Your task to perform on an android device: empty trash in google photos Image 0: 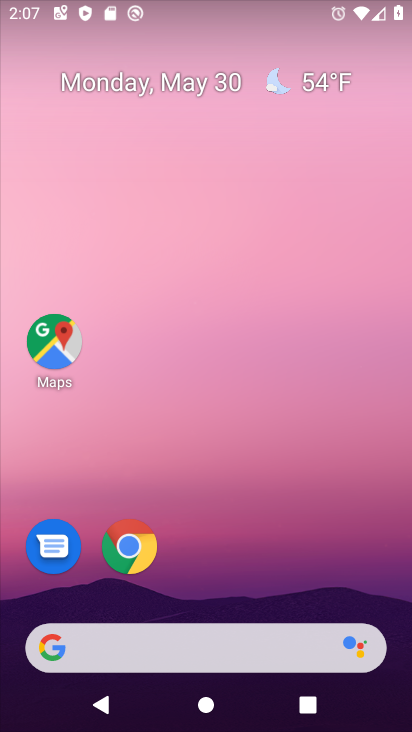
Step 0: press home button
Your task to perform on an android device: empty trash in google photos Image 1: 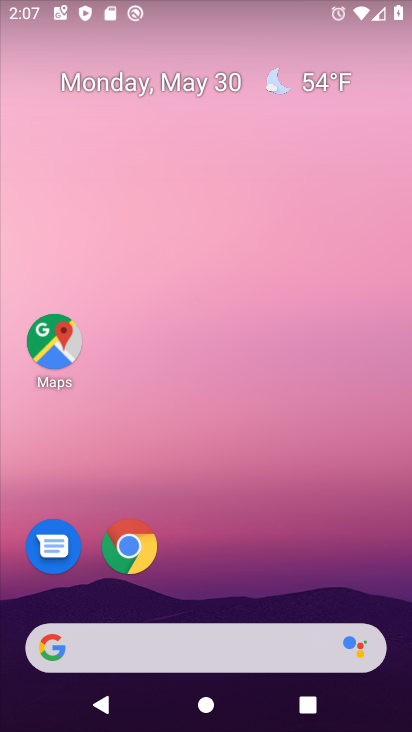
Step 1: drag from (246, 505) to (307, 56)
Your task to perform on an android device: empty trash in google photos Image 2: 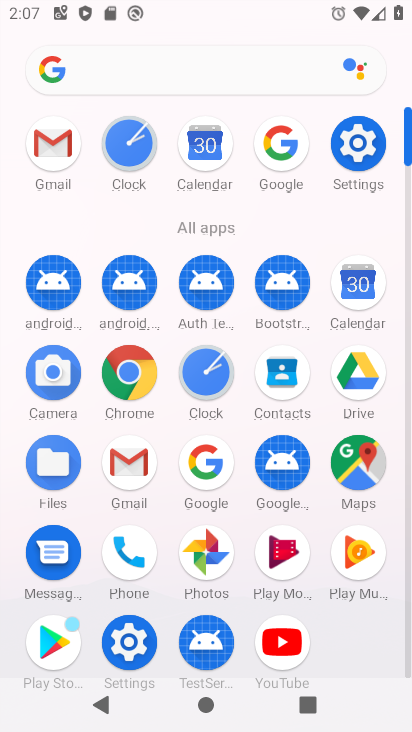
Step 2: click (204, 544)
Your task to perform on an android device: empty trash in google photos Image 3: 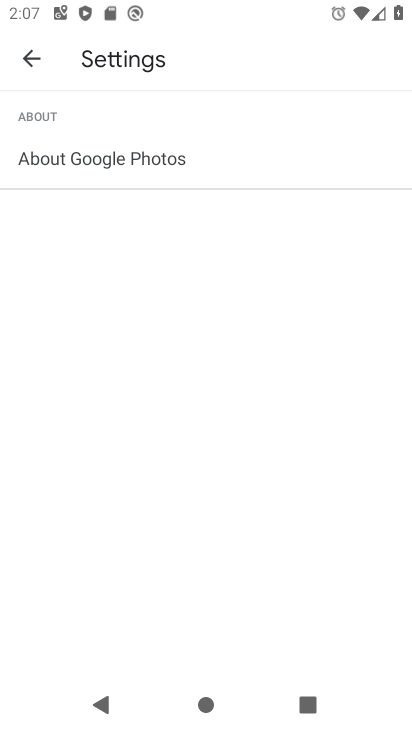
Step 3: click (25, 65)
Your task to perform on an android device: empty trash in google photos Image 4: 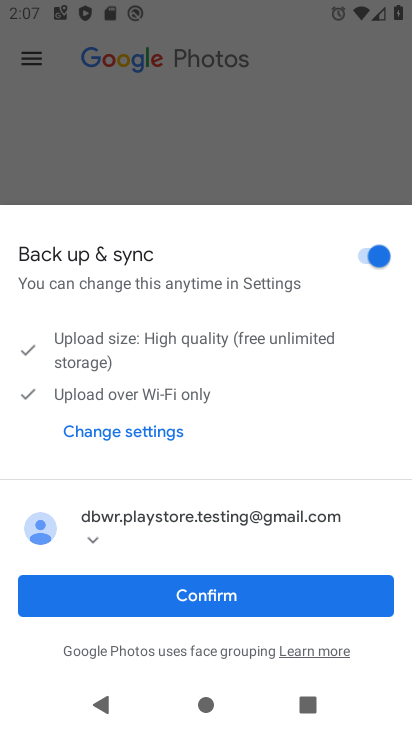
Step 4: click (213, 592)
Your task to perform on an android device: empty trash in google photos Image 5: 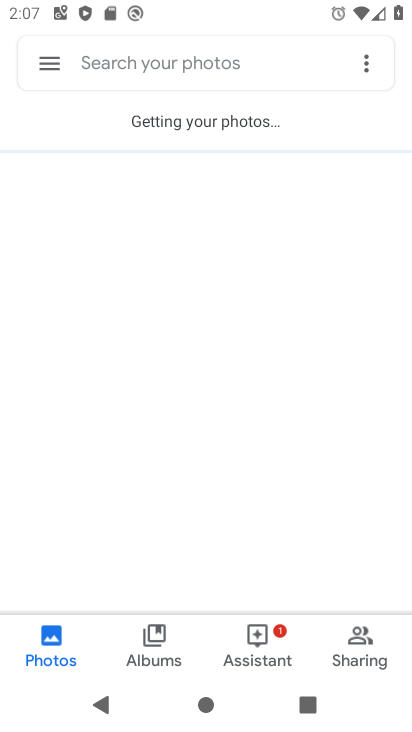
Step 5: click (39, 66)
Your task to perform on an android device: empty trash in google photos Image 6: 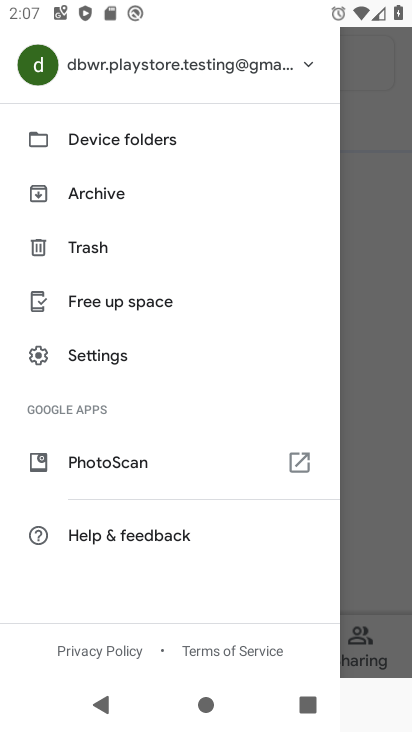
Step 6: click (61, 245)
Your task to perform on an android device: empty trash in google photos Image 7: 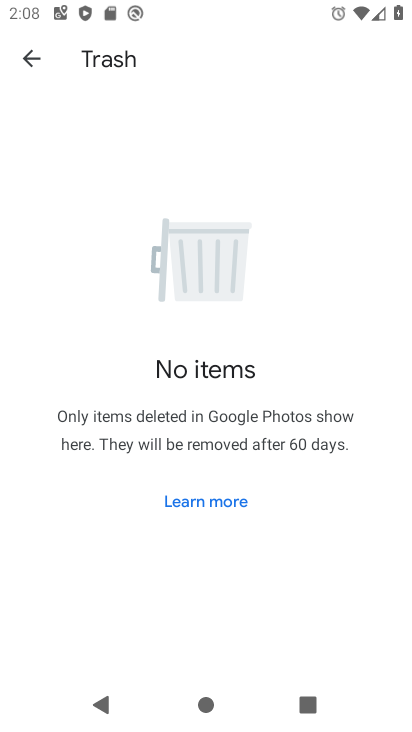
Step 7: task complete